Your task to perform on an android device: turn on location history Image 0: 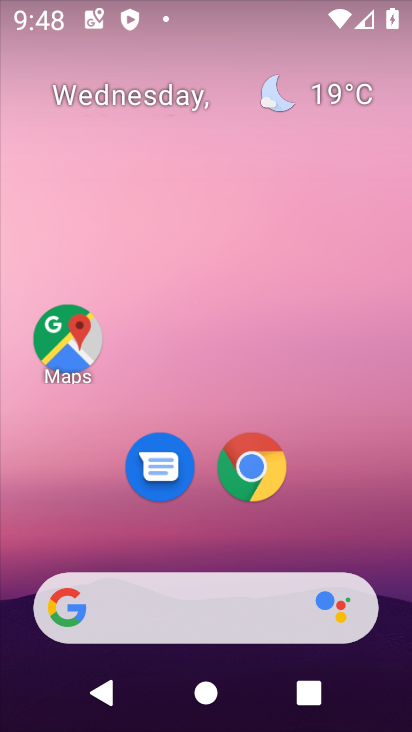
Step 0: drag from (312, 530) to (249, 57)
Your task to perform on an android device: turn on location history Image 1: 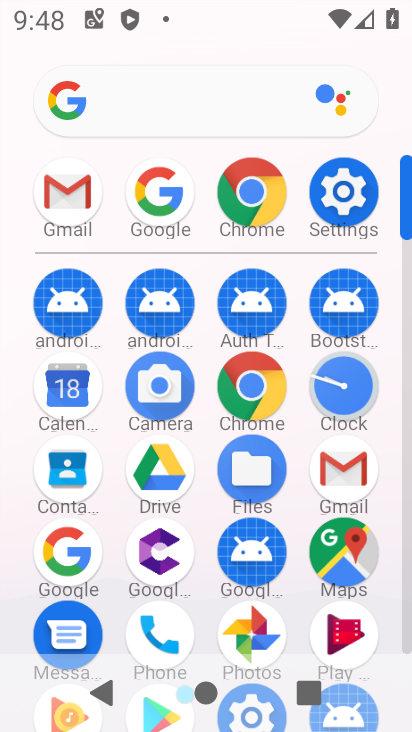
Step 1: click (333, 192)
Your task to perform on an android device: turn on location history Image 2: 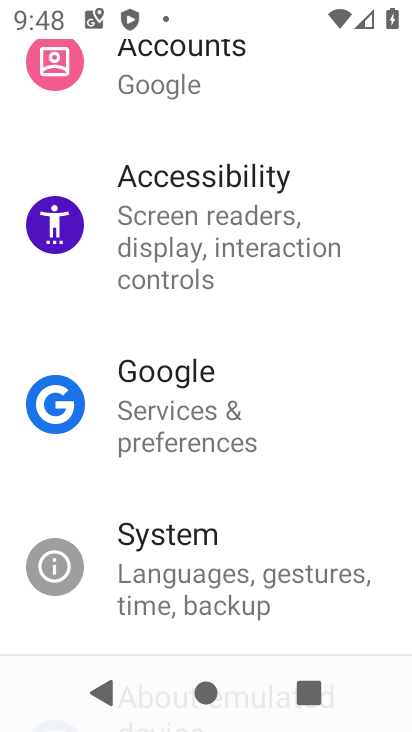
Step 2: drag from (301, 603) to (248, 149)
Your task to perform on an android device: turn on location history Image 3: 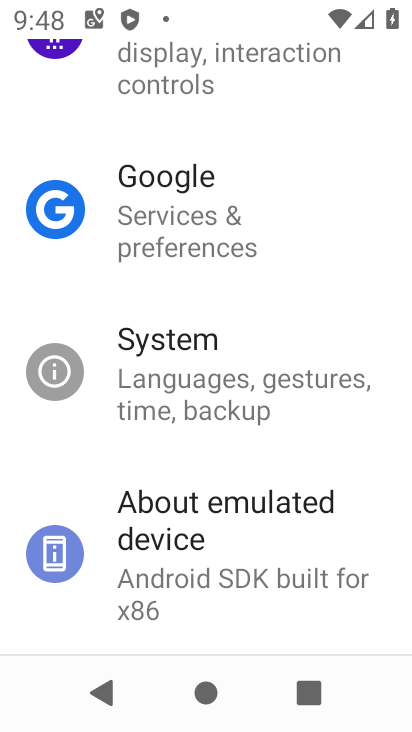
Step 3: drag from (247, 209) to (243, 660)
Your task to perform on an android device: turn on location history Image 4: 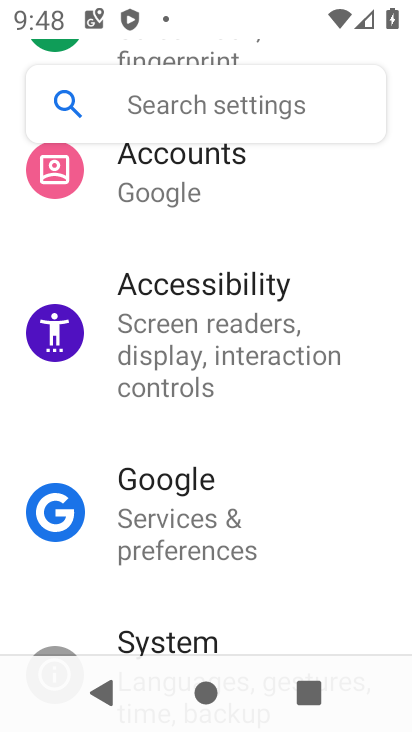
Step 4: drag from (215, 139) to (272, 689)
Your task to perform on an android device: turn on location history Image 5: 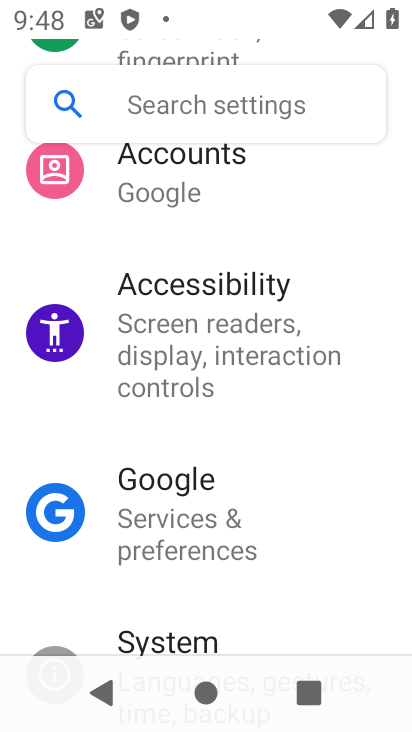
Step 5: drag from (248, 224) to (262, 665)
Your task to perform on an android device: turn on location history Image 6: 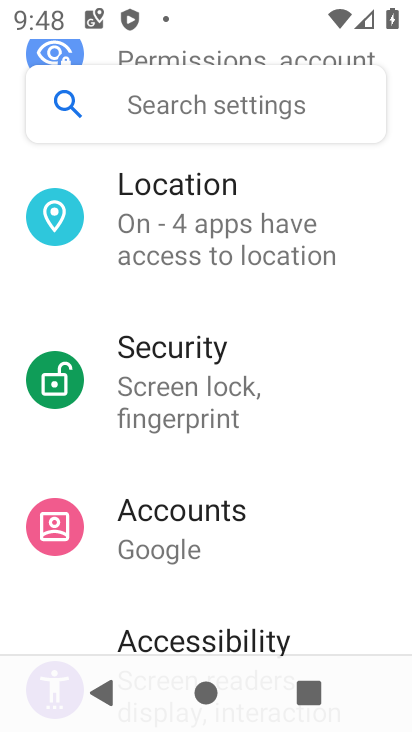
Step 6: click (237, 243)
Your task to perform on an android device: turn on location history Image 7: 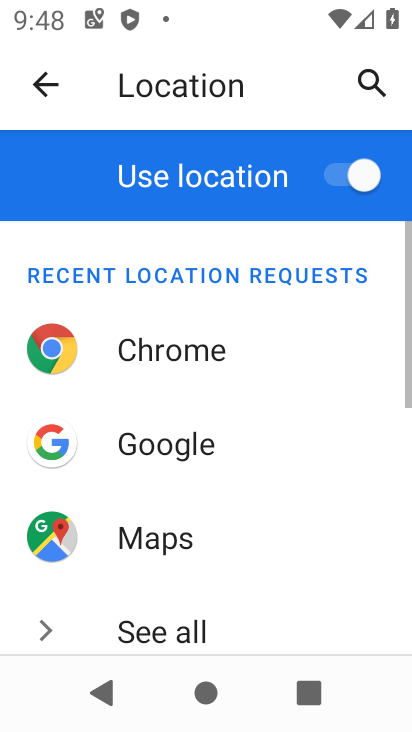
Step 7: drag from (285, 607) to (249, 137)
Your task to perform on an android device: turn on location history Image 8: 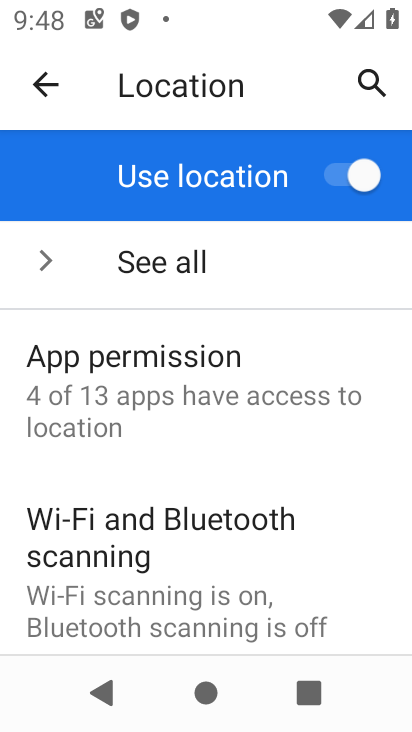
Step 8: drag from (294, 571) to (267, 168)
Your task to perform on an android device: turn on location history Image 9: 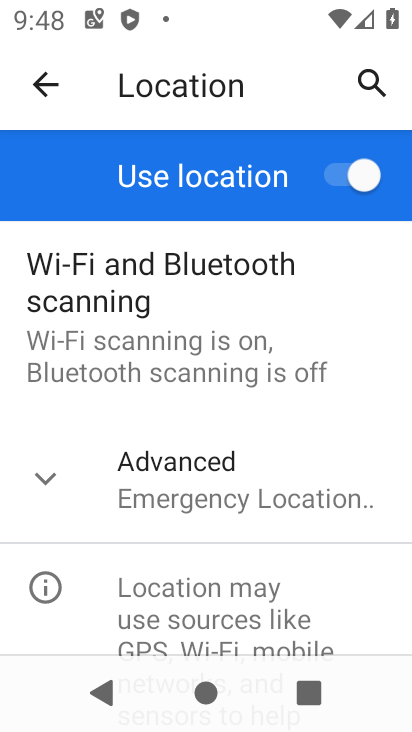
Step 9: click (237, 500)
Your task to perform on an android device: turn on location history Image 10: 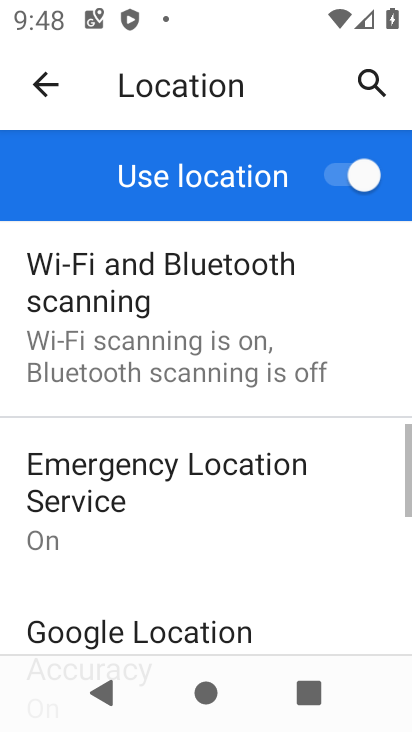
Step 10: drag from (264, 605) to (246, 195)
Your task to perform on an android device: turn on location history Image 11: 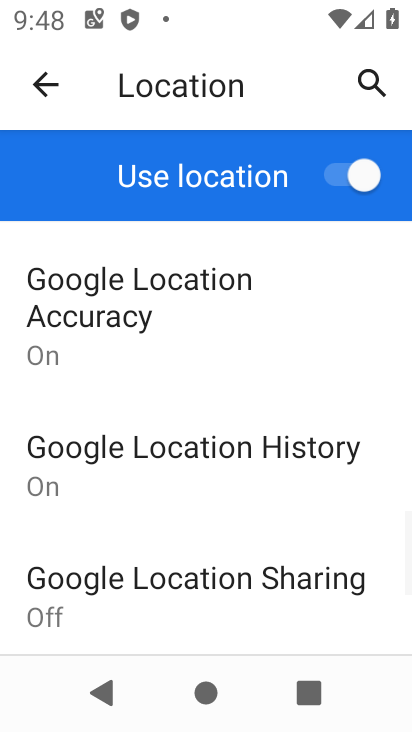
Step 11: click (241, 450)
Your task to perform on an android device: turn on location history Image 12: 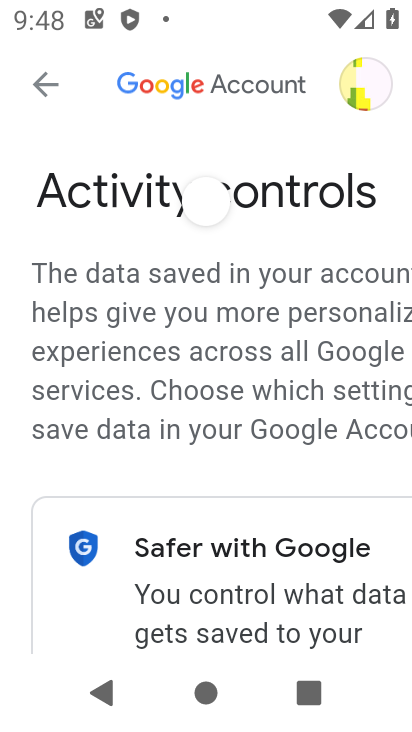
Step 12: task complete